Your task to perform on an android device: Open the Play Movies app and select the watchlist tab. Image 0: 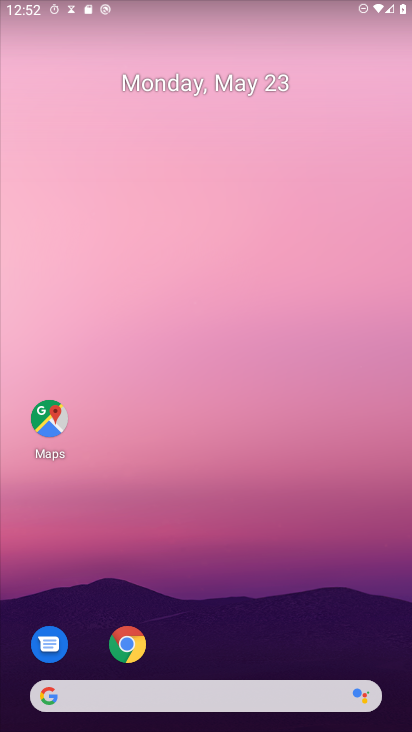
Step 0: drag from (285, 626) to (328, 35)
Your task to perform on an android device: Open the Play Movies app and select the watchlist tab. Image 1: 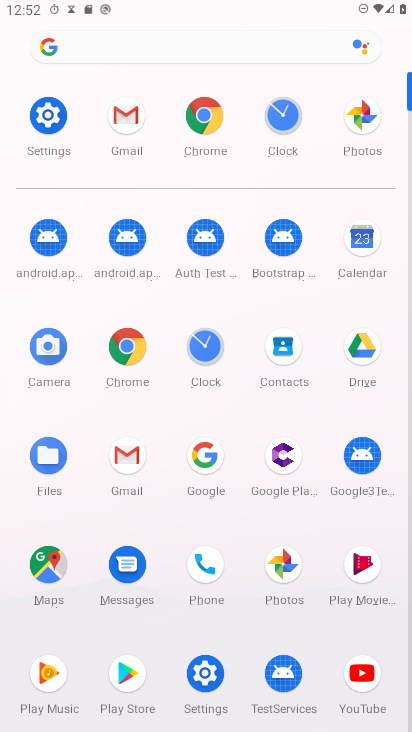
Step 1: click (361, 568)
Your task to perform on an android device: Open the Play Movies app and select the watchlist tab. Image 2: 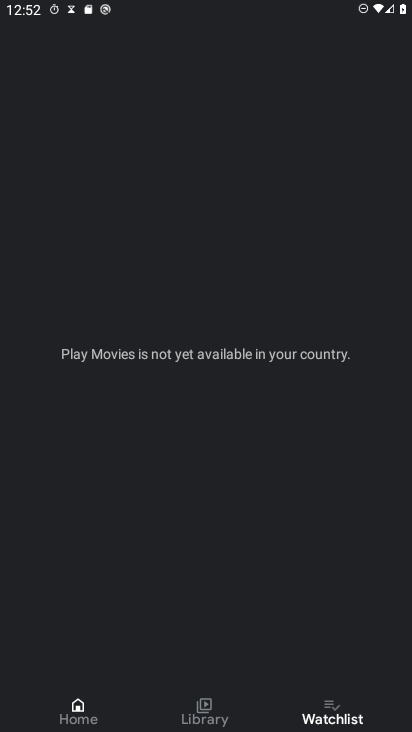
Step 2: click (333, 708)
Your task to perform on an android device: Open the Play Movies app and select the watchlist tab. Image 3: 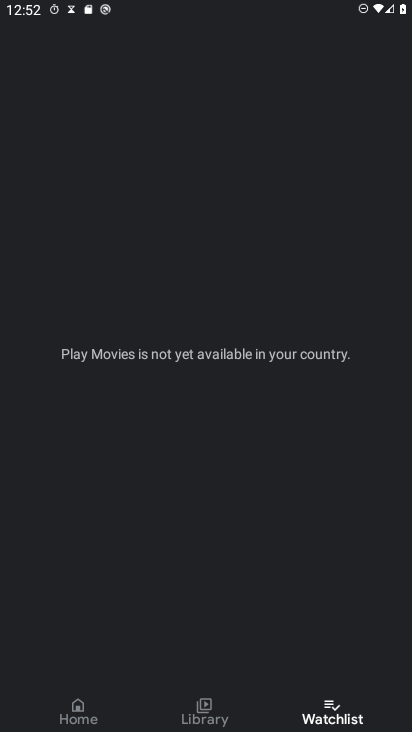
Step 3: task complete